Your task to perform on an android device: turn off notifications in google photos Image 0: 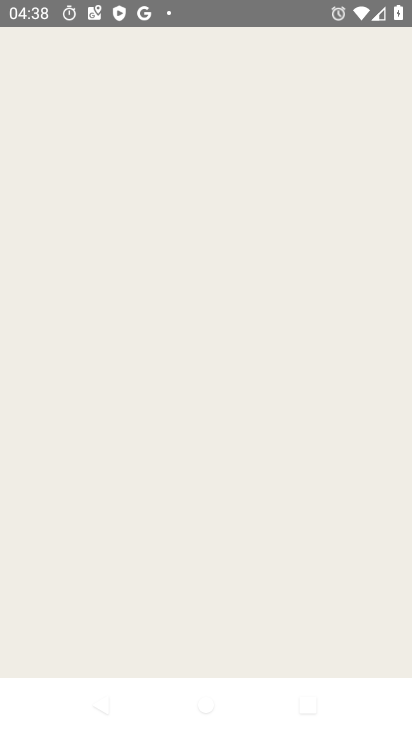
Step 0: click (387, 366)
Your task to perform on an android device: turn off notifications in google photos Image 1: 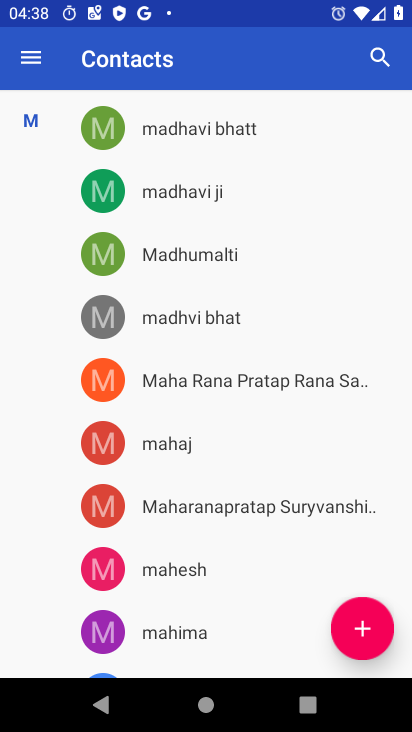
Step 1: press home button
Your task to perform on an android device: turn off notifications in google photos Image 2: 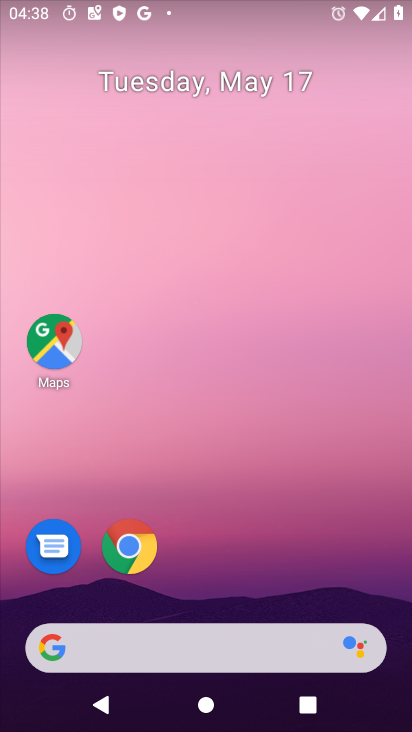
Step 2: drag from (404, 631) to (396, 318)
Your task to perform on an android device: turn off notifications in google photos Image 3: 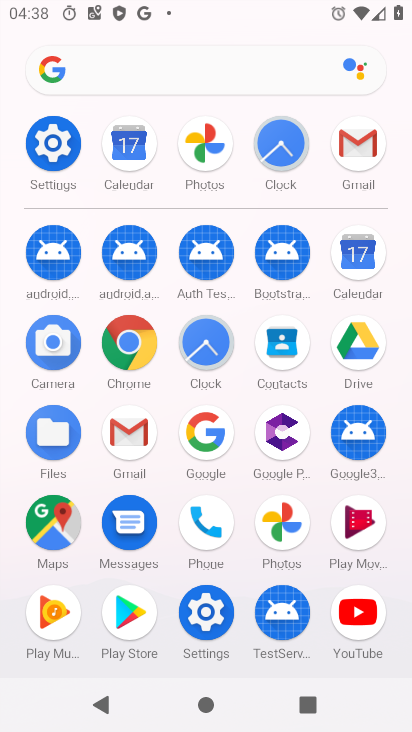
Step 3: click (278, 534)
Your task to perform on an android device: turn off notifications in google photos Image 4: 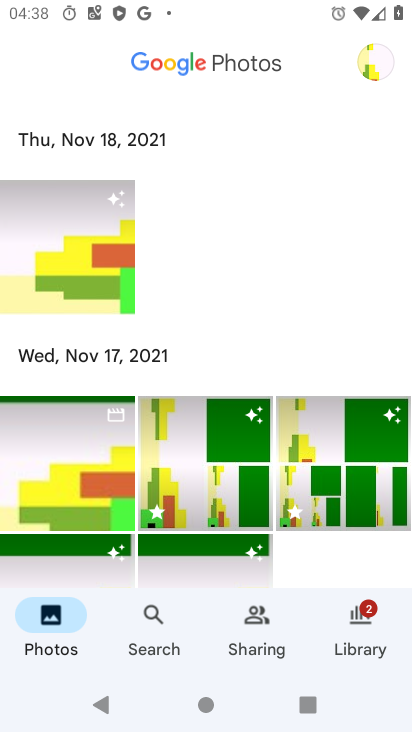
Step 4: click (357, 68)
Your task to perform on an android device: turn off notifications in google photos Image 5: 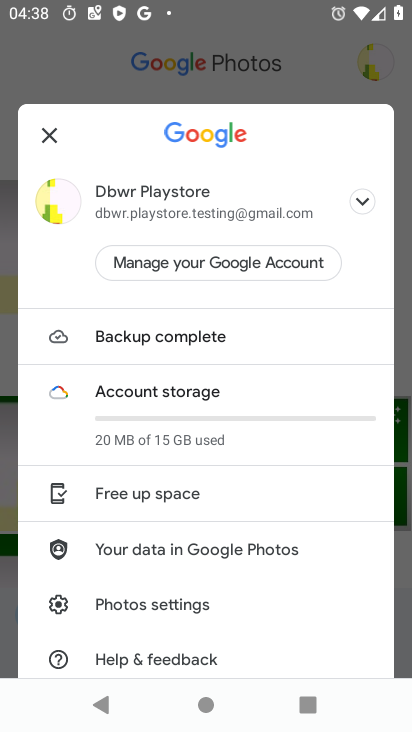
Step 5: click (378, 67)
Your task to perform on an android device: turn off notifications in google photos Image 6: 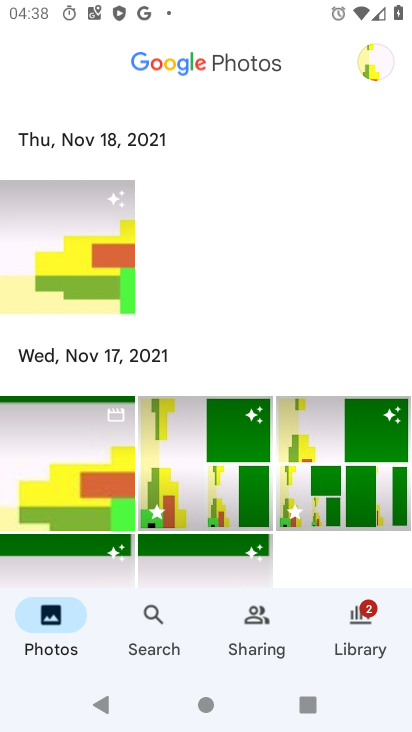
Step 6: click (379, 67)
Your task to perform on an android device: turn off notifications in google photos Image 7: 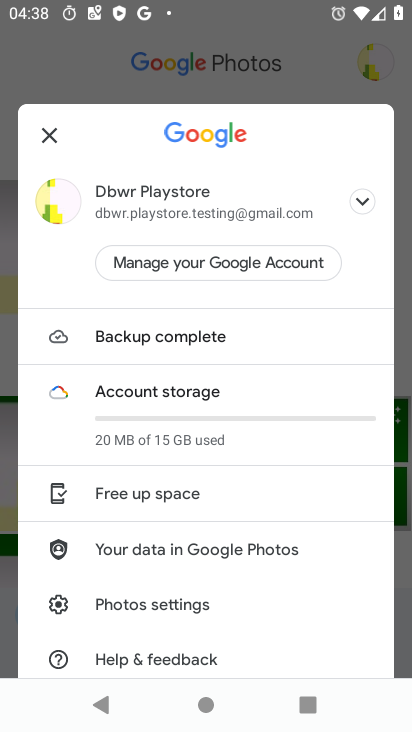
Step 7: click (134, 600)
Your task to perform on an android device: turn off notifications in google photos Image 8: 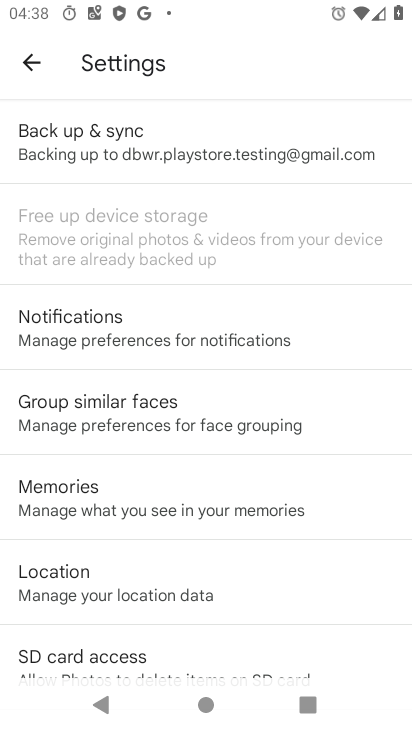
Step 8: click (65, 328)
Your task to perform on an android device: turn off notifications in google photos Image 9: 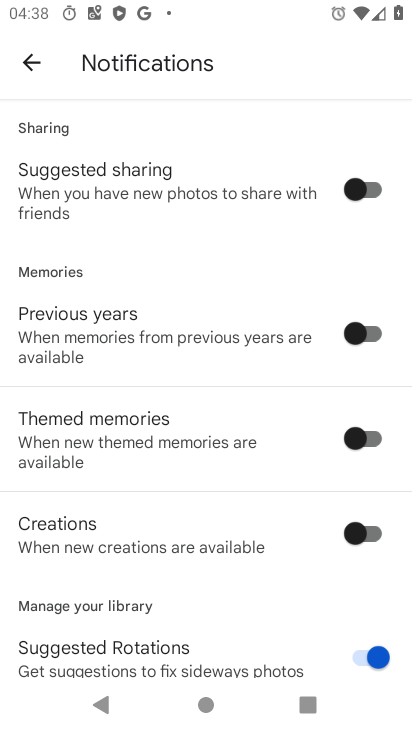
Step 9: click (358, 660)
Your task to perform on an android device: turn off notifications in google photos Image 10: 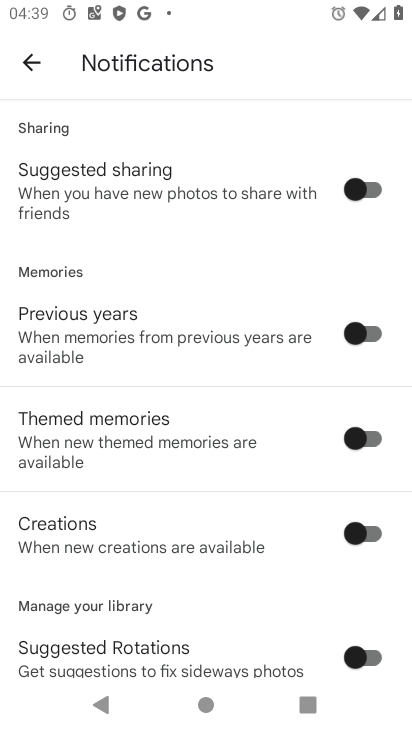
Step 10: task complete